Your task to perform on an android device: delete the emails in spam in the gmail app Image 0: 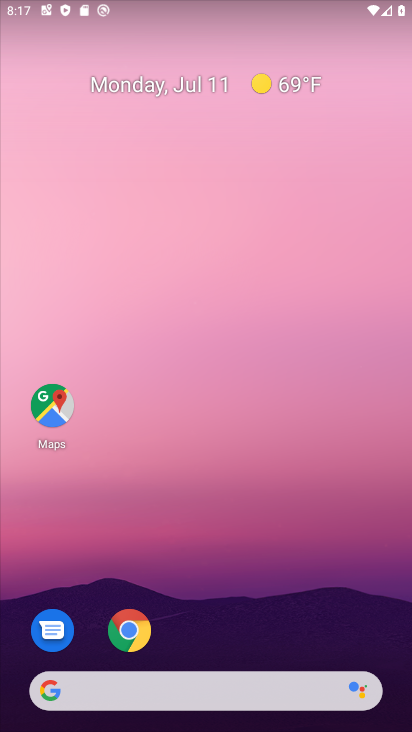
Step 0: drag from (195, 671) to (79, 4)
Your task to perform on an android device: delete the emails in spam in the gmail app Image 1: 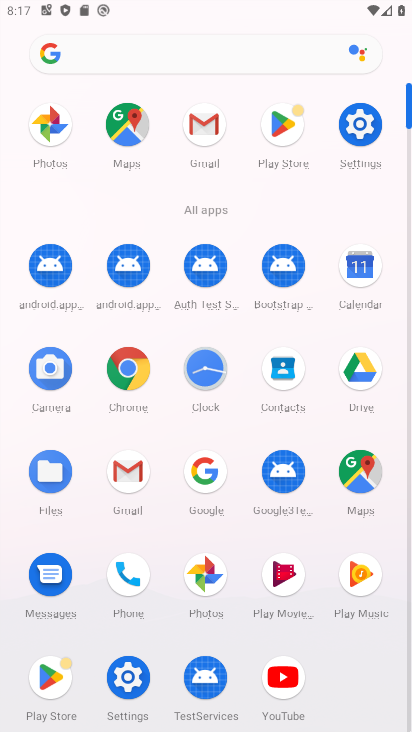
Step 1: click (195, 122)
Your task to perform on an android device: delete the emails in spam in the gmail app Image 2: 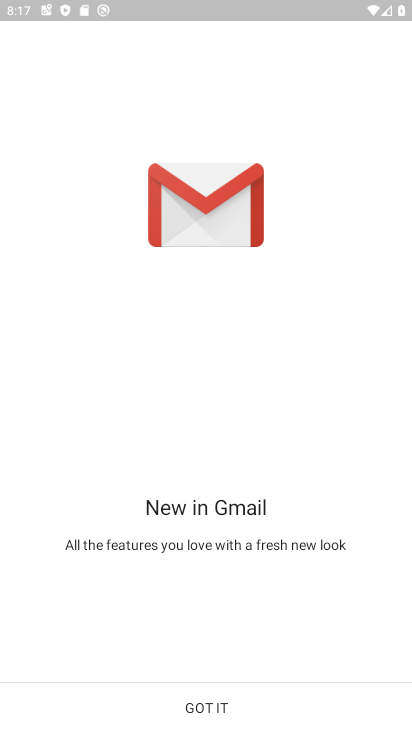
Step 2: click (207, 709)
Your task to perform on an android device: delete the emails in spam in the gmail app Image 3: 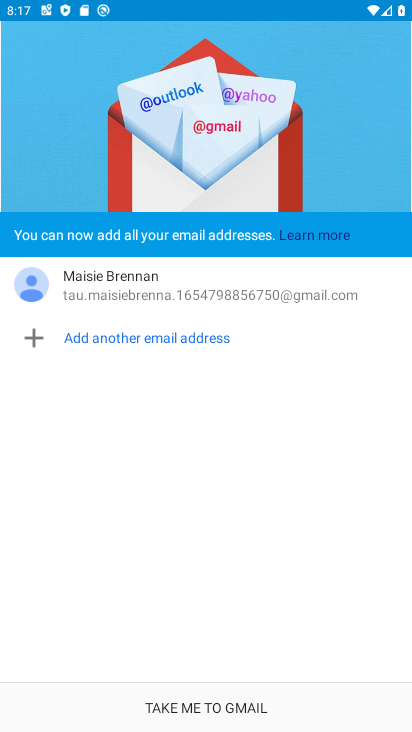
Step 3: click (207, 709)
Your task to perform on an android device: delete the emails in spam in the gmail app Image 4: 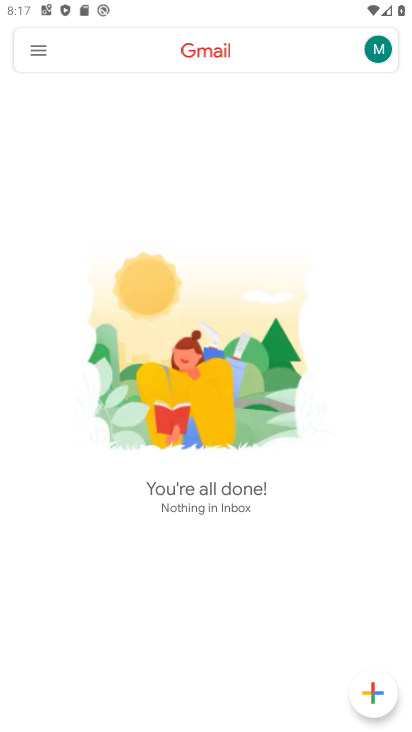
Step 4: click (36, 56)
Your task to perform on an android device: delete the emails in spam in the gmail app Image 5: 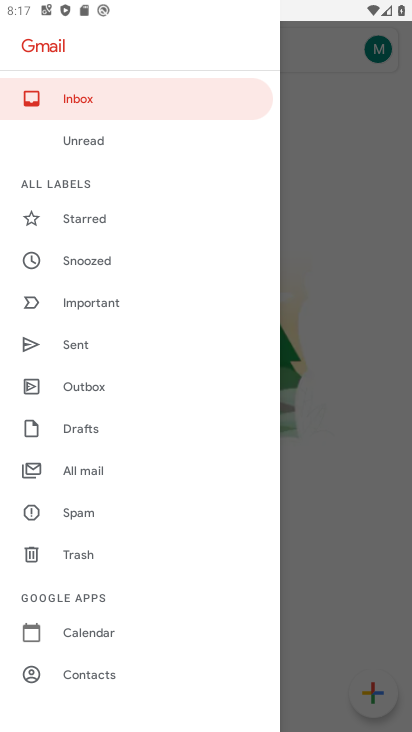
Step 5: click (82, 516)
Your task to perform on an android device: delete the emails in spam in the gmail app Image 6: 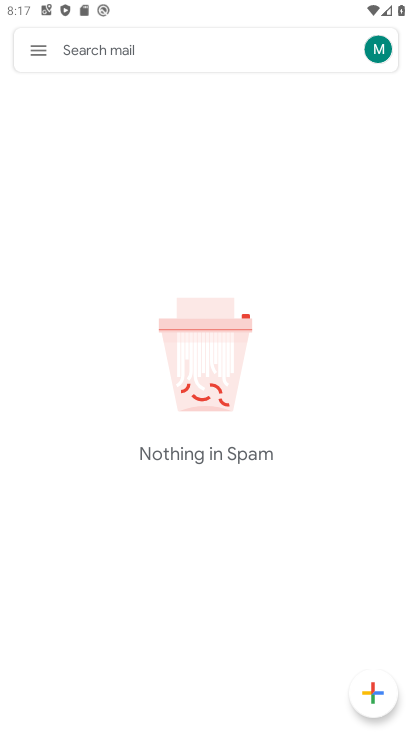
Step 6: task complete